Your task to perform on an android device: turn off translation in the chrome app Image 0: 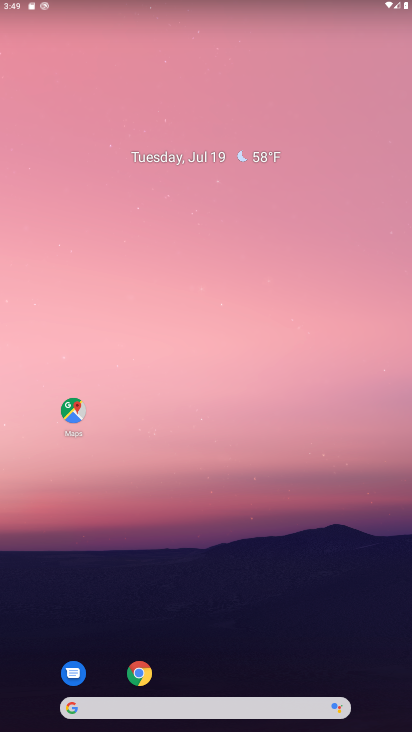
Step 0: drag from (201, 674) to (248, 11)
Your task to perform on an android device: turn off translation in the chrome app Image 1: 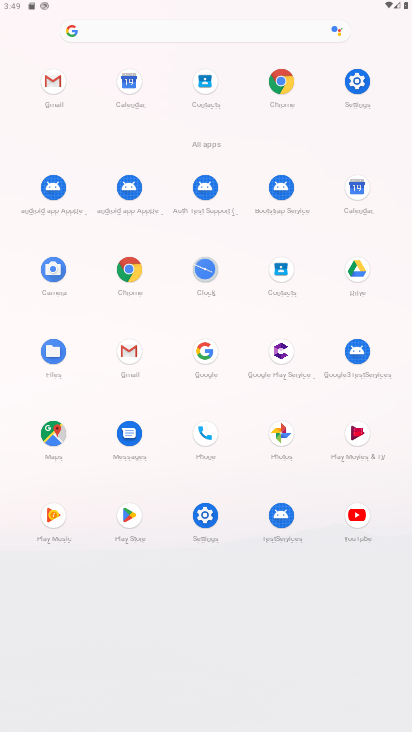
Step 1: click (130, 273)
Your task to perform on an android device: turn off translation in the chrome app Image 2: 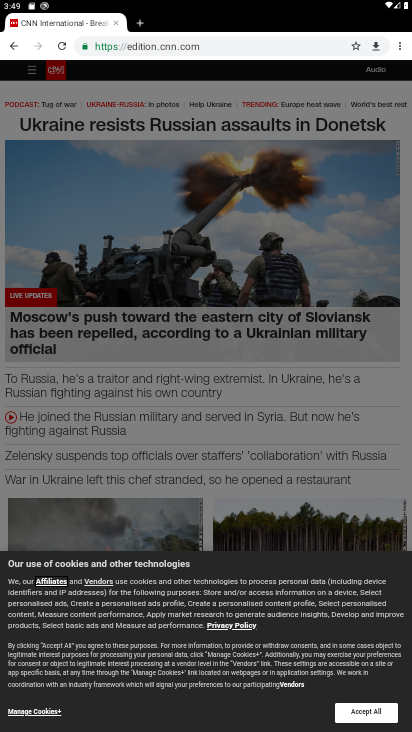
Step 2: drag from (397, 53) to (336, 275)
Your task to perform on an android device: turn off translation in the chrome app Image 3: 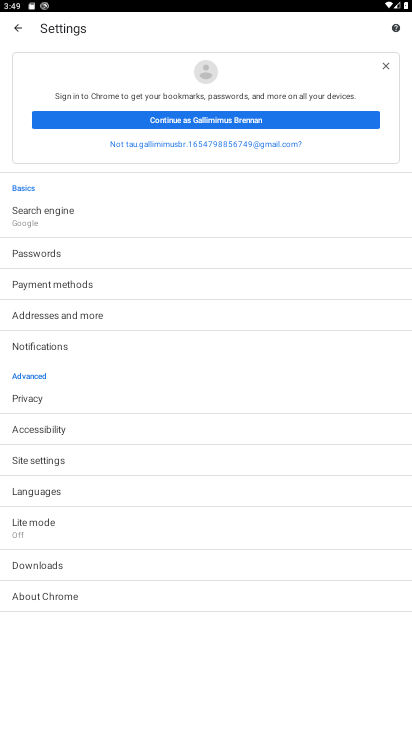
Step 3: click (59, 460)
Your task to perform on an android device: turn off translation in the chrome app Image 4: 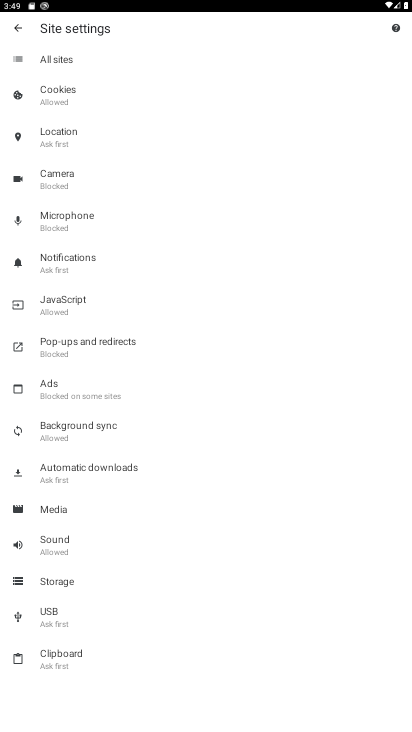
Step 4: press back button
Your task to perform on an android device: turn off translation in the chrome app Image 5: 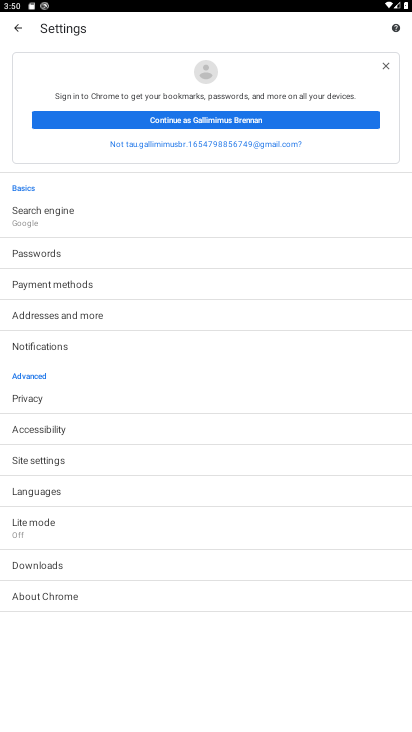
Step 5: click (51, 490)
Your task to perform on an android device: turn off translation in the chrome app Image 6: 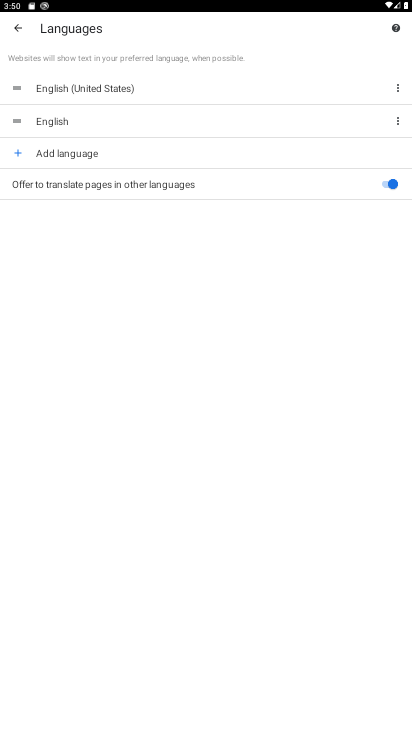
Step 6: click (392, 179)
Your task to perform on an android device: turn off translation in the chrome app Image 7: 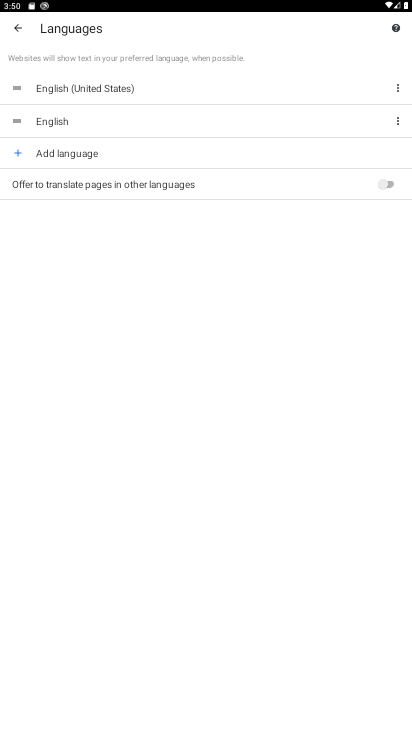
Step 7: task complete